Your task to perform on an android device: turn on the 12-hour format for clock Image 0: 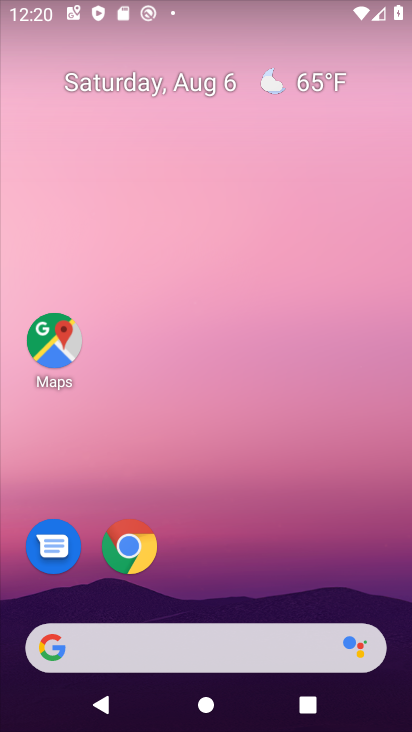
Step 0: drag from (201, 572) to (141, 84)
Your task to perform on an android device: turn on the 12-hour format for clock Image 1: 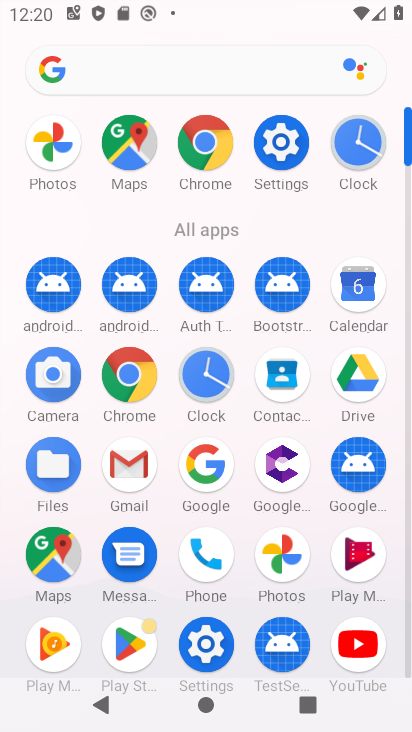
Step 1: click (198, 372)
Your task to perform on an android device: turn on the 12-hour format for clock Image 2: 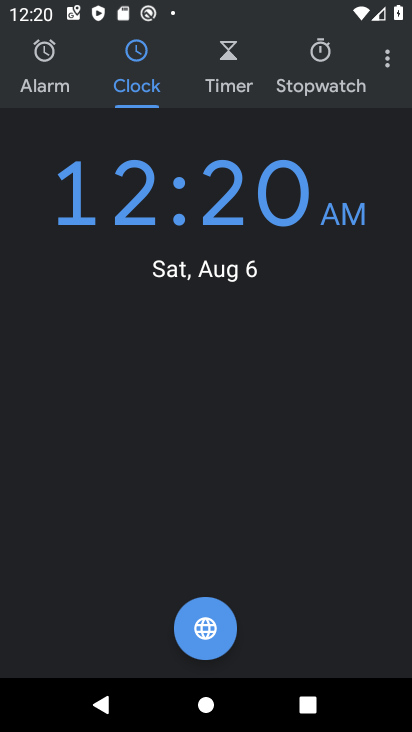
Step 2: click (393, 64)
Your task to perform on an android device: turn on the 12-hour format for clock Image 3: 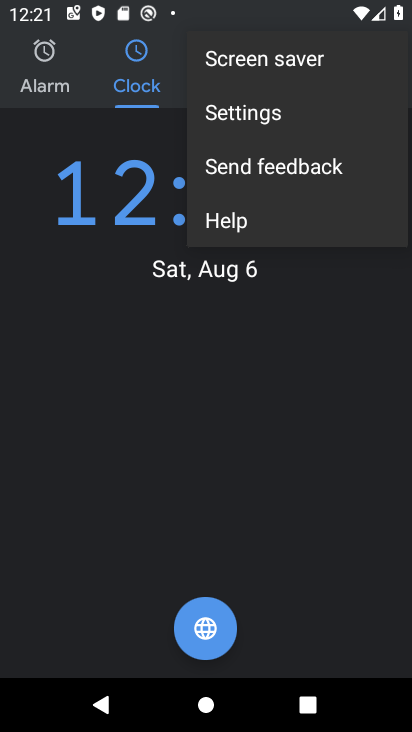
Step 3: click (270, 124)
Your task to perform on an android device: turn on the 12-hour format for clock Image 4: 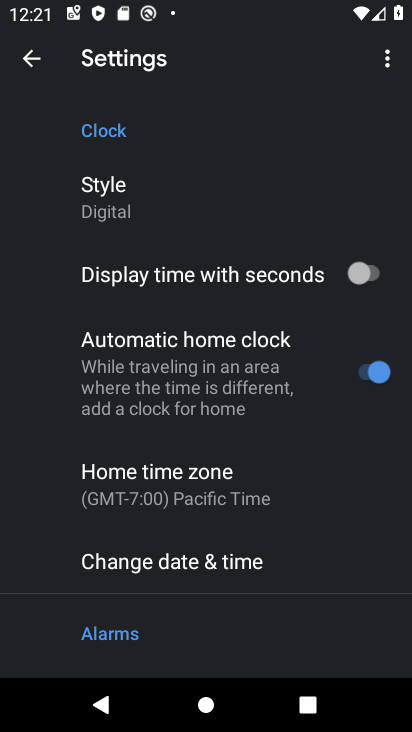
Step 4: click (226, 560)
Your task to perform on an android device: turn on the 12-hour format for clock Image 5: 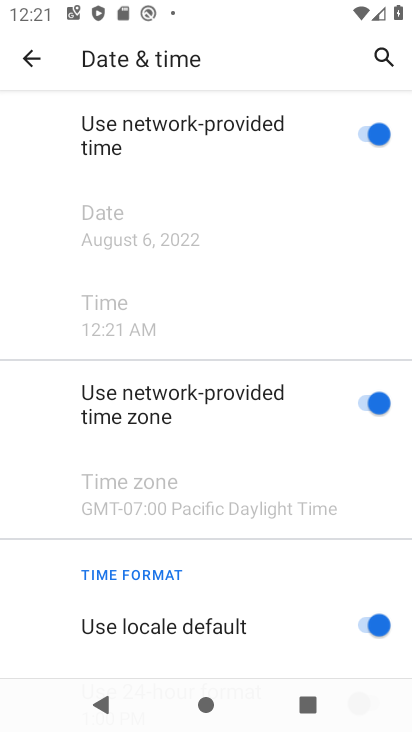
Step 5: task complete